Your task to perform on an android device: Go to internet settings Image 0: 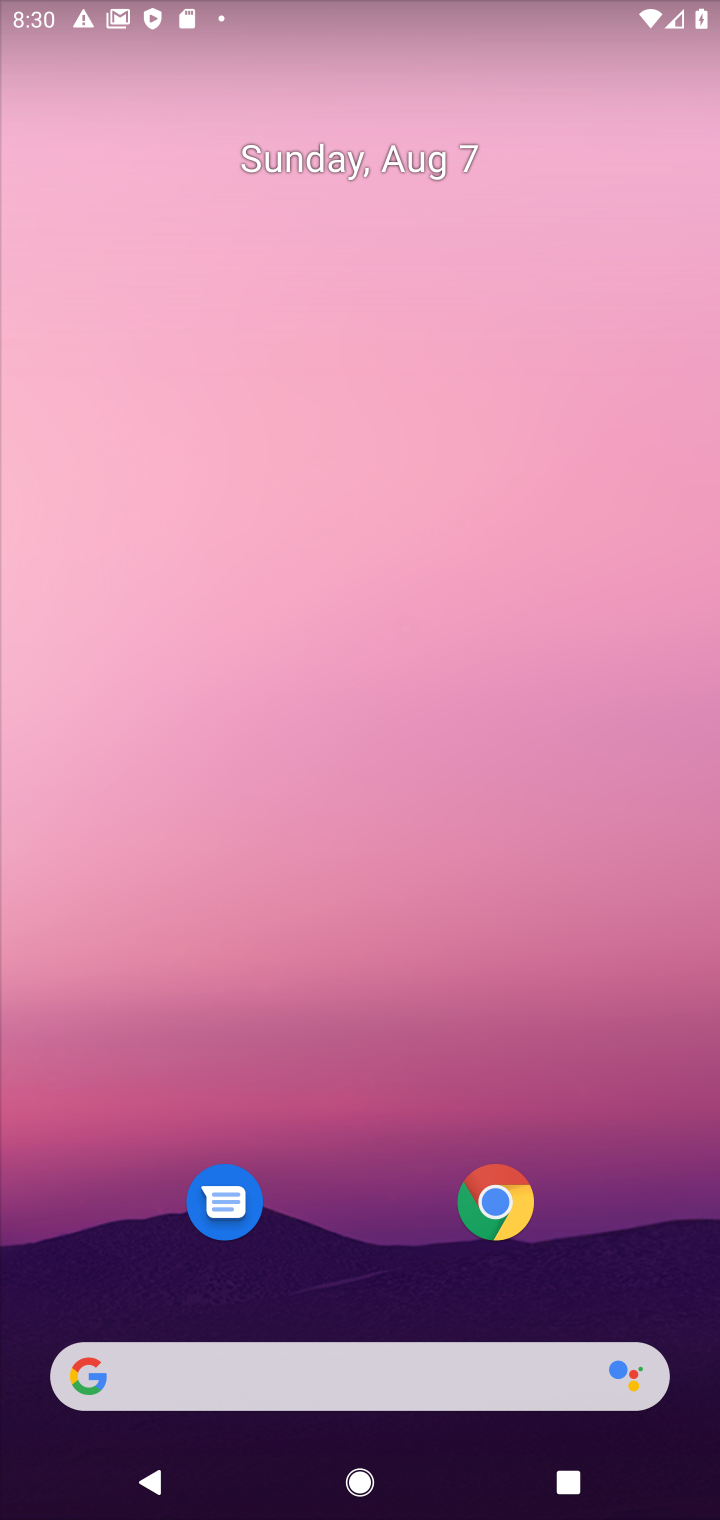
Step 0: drag from (369, 1230) to (362, 443)
Your task to perform on an android device: Go to internet settings Image 1: 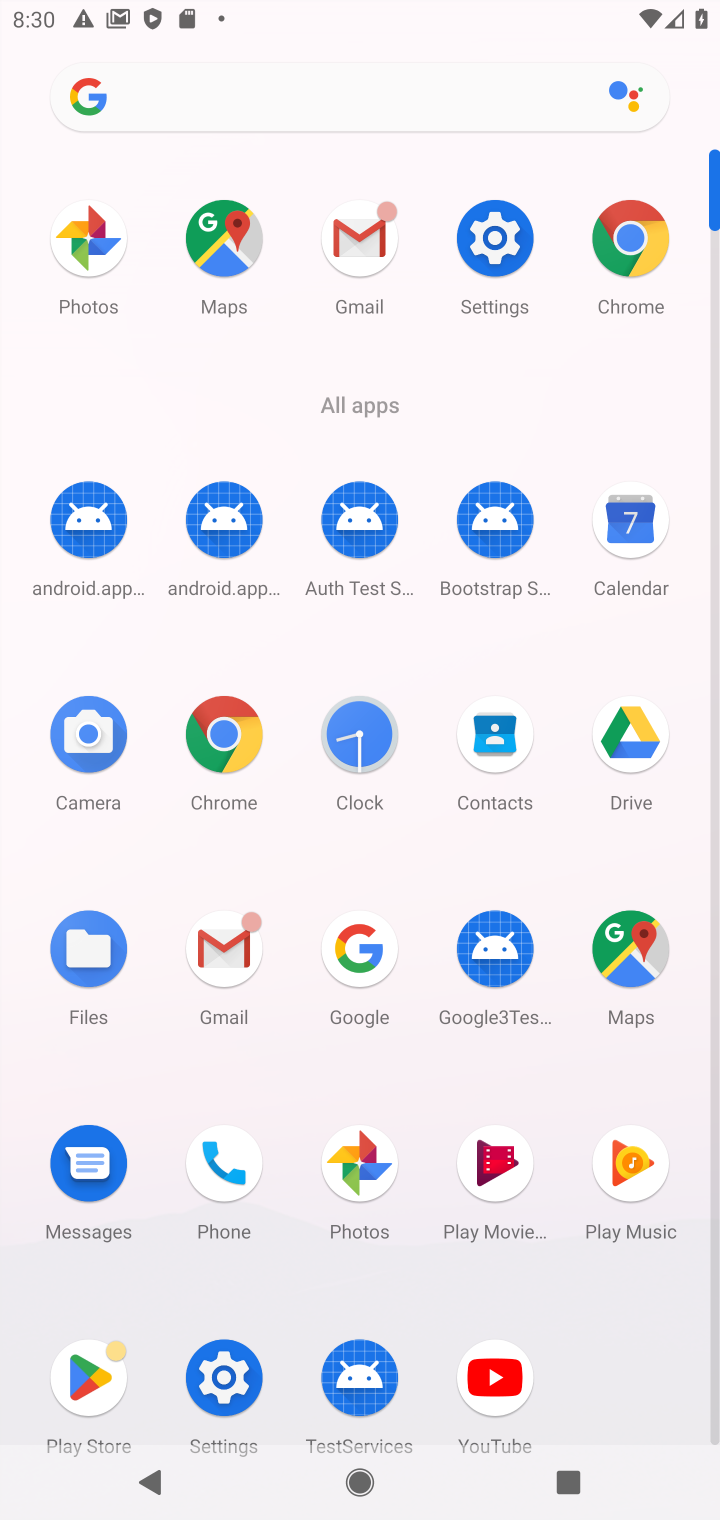
Step 1: click (493, 245)
Your task to perform on an android device: Go to internet settings Image 2: 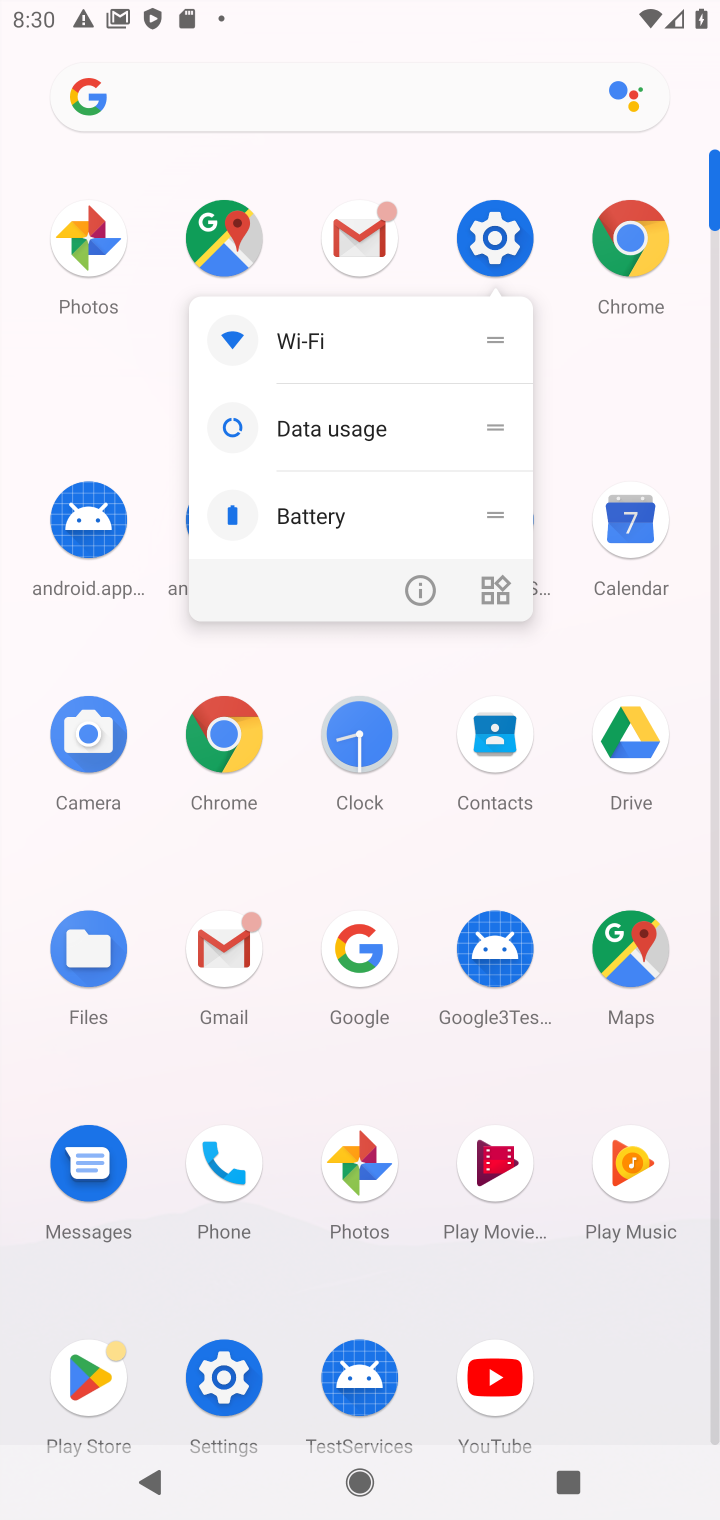
Step 2: click (493, 244)
Your task to perform on an android device: Go to internet settings Image 3: 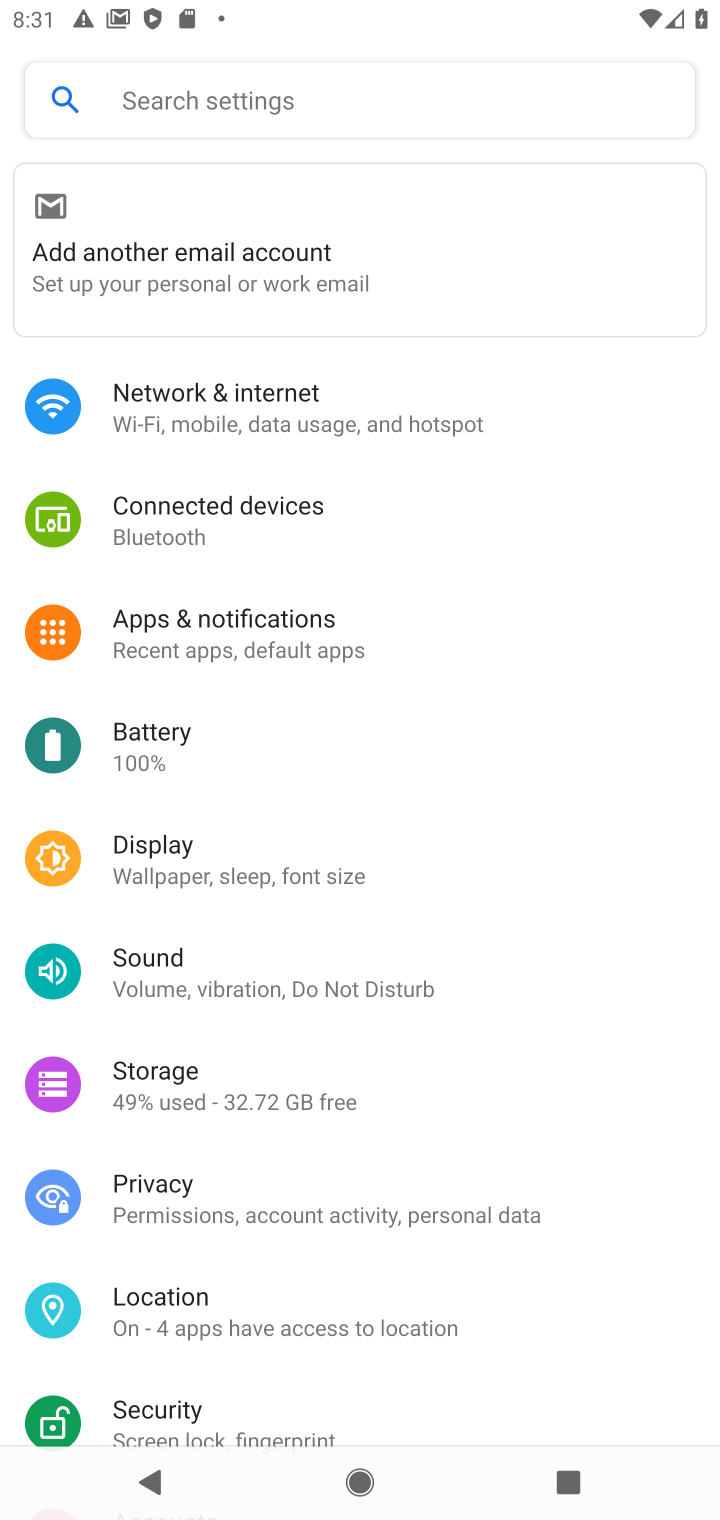
Step 3: click (364, 399)
Your task to perform on an android device: Go to internet settings Image 4: 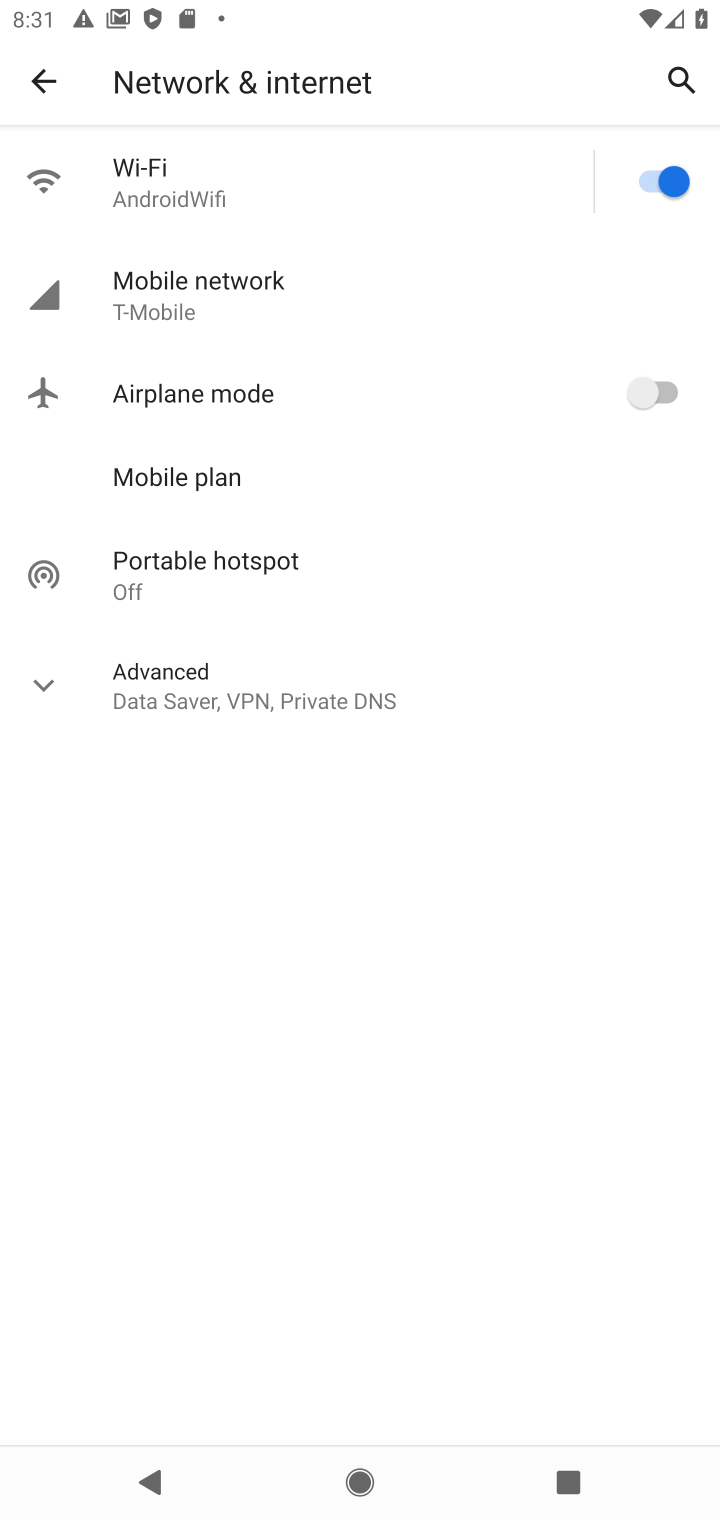
Step 4: click (283, 282)
Your task to perform on an android device: Go to internet settings Image 5: 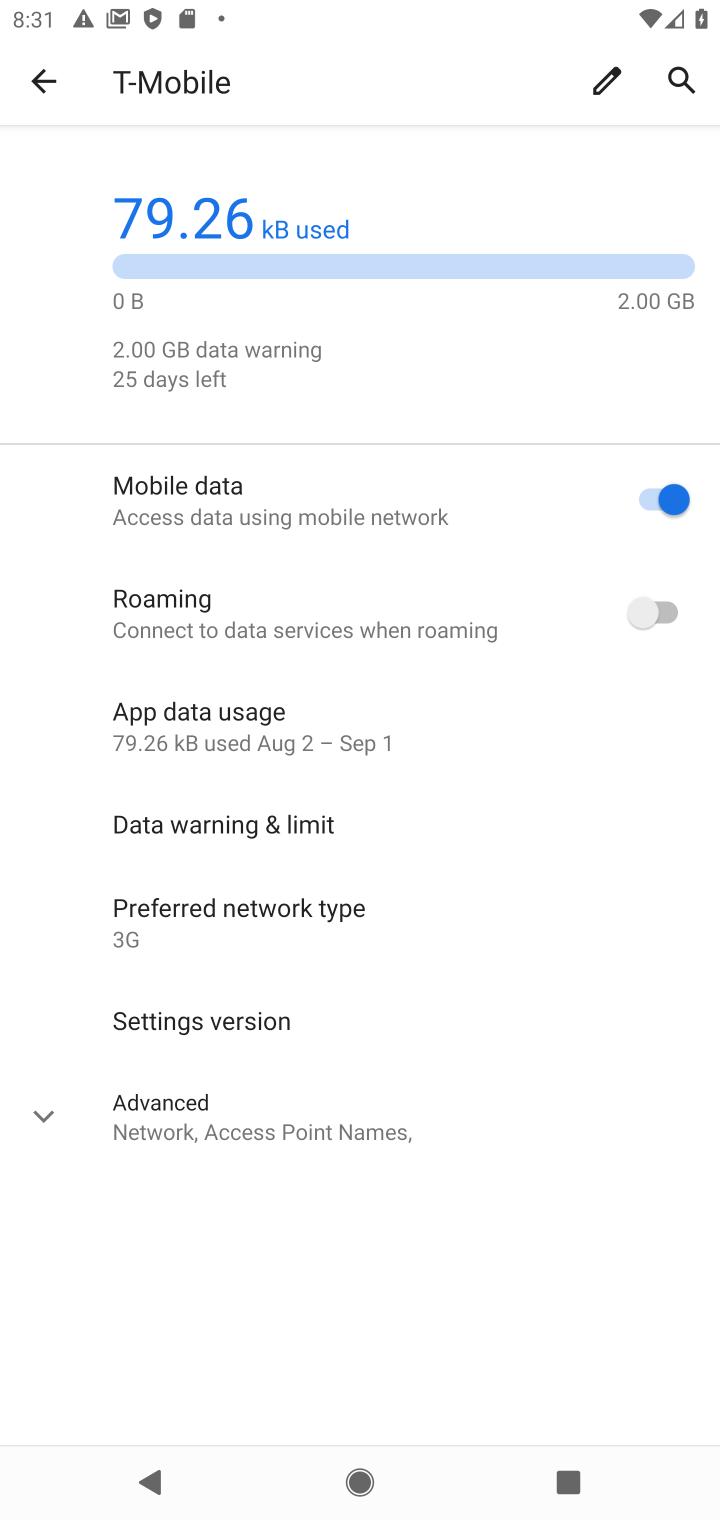
Step 5: task complete